Your task to perform on an android device: change timer sound Image 0: 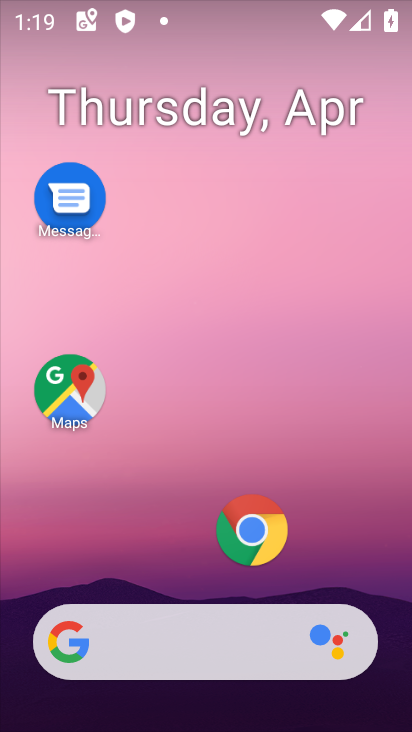
Step 0: drag from (208, 593) to (202, 69)
Your task to perform on an android device: change timer sound Image 1: 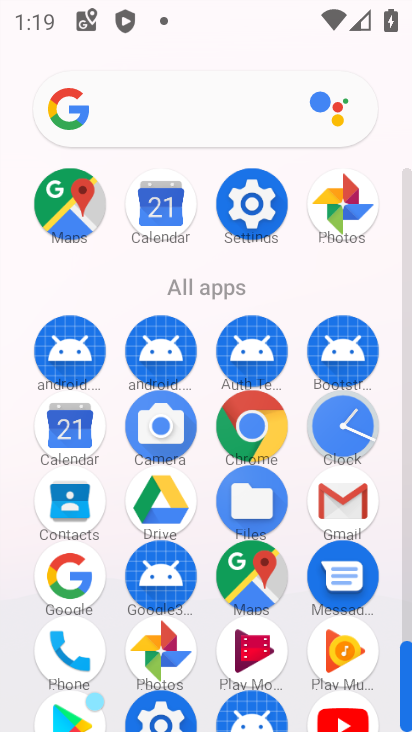
Step 1: click (353, 414)
Your task to perform on an android device: change timer sound Image 2: 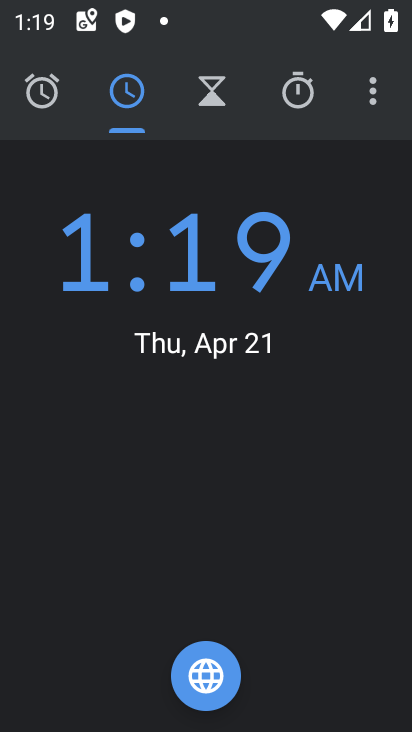
Step 2: click (366, 92)
Your task to perform on an android device: change timer sound Image 3: 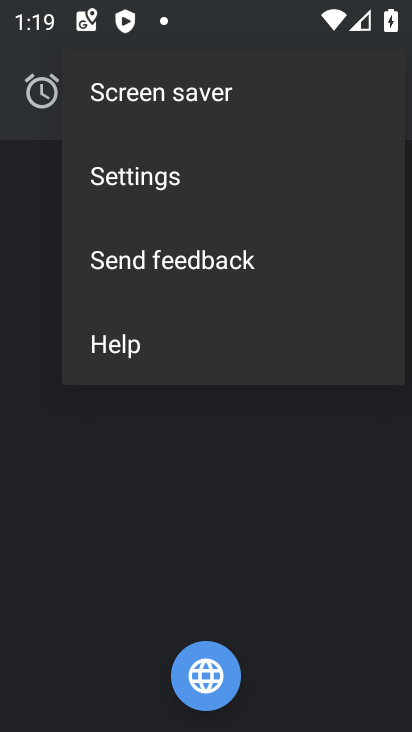
Step 3: click (225, 167)
Your task to perform on an android device: change timer sound Image 4: 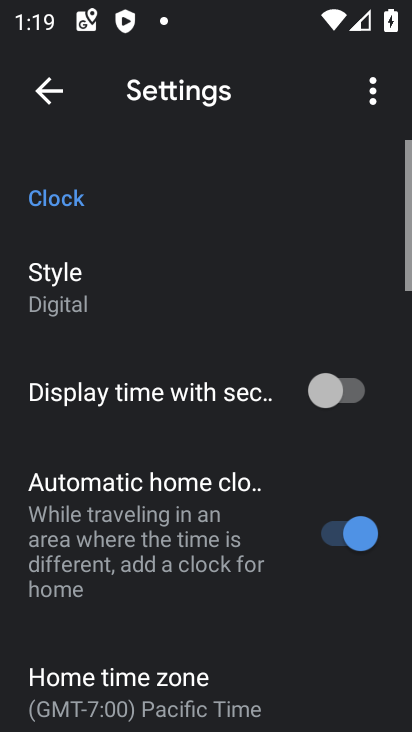
Step 4: drag from (211, 558) to (168, 187)
Your task to perform on an android device: change timer sound Image 5: 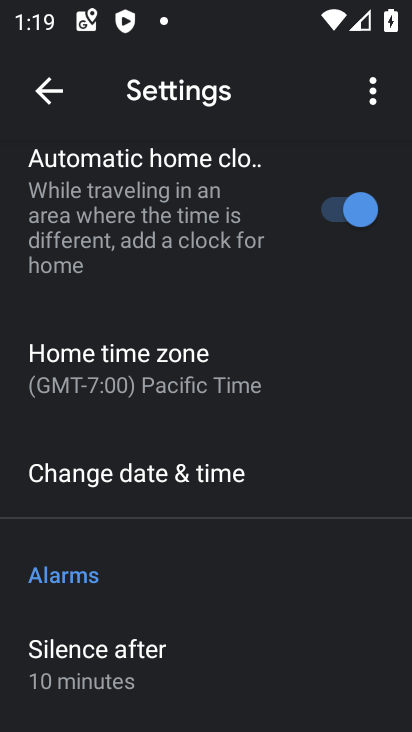
Step 5: drag from (166, 640) to (140, 223)
Your task to perform on an android device: change timer sound Image 6: 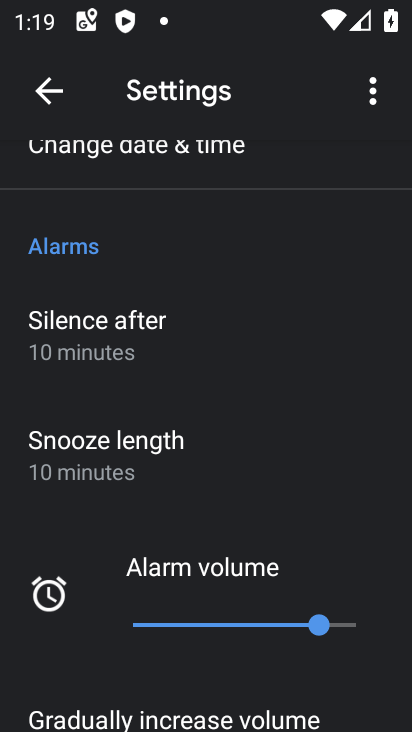
Step 6: drag from (169, 533) to (167, 126)
Your task to perform on an android device: change timer sound Image 7: 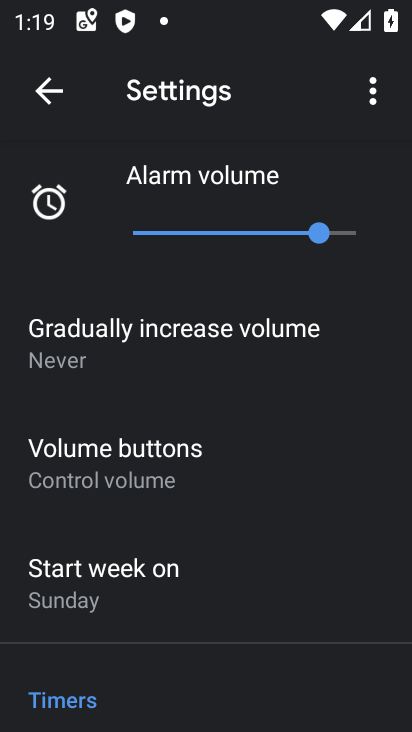
Step 7: drag from (135, 704) to (135, 176)
Your task to perform on an android device: change timer sound Image 8: 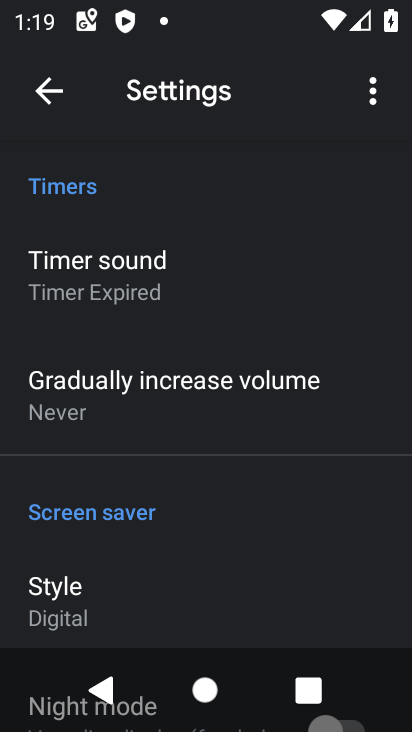
Step 8: click (111, 280)
Your task to perform on an android device: change timer sound Image 9: 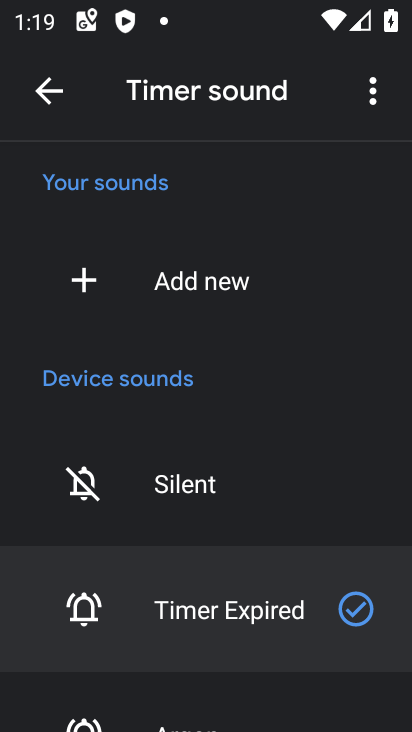
Step 9: click (214, 694)
Your task to perform on an android device: change timer sound Image 10: 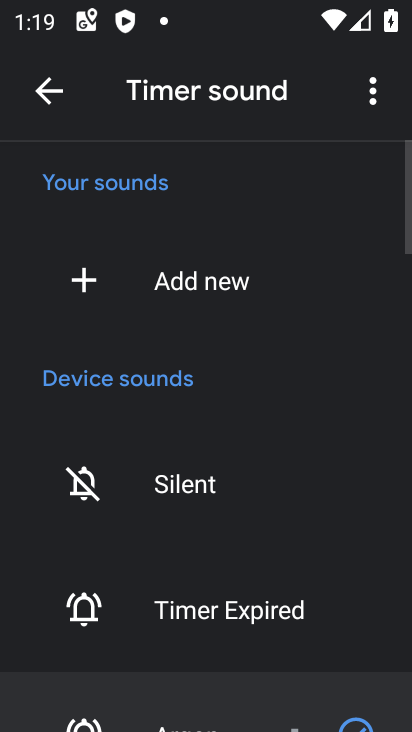
Step 10: task complete